Your task to perform on an android device: open app "Cash App" (install if not already installed) and enter user name: "submodules@gmail.com" and password: "heavenly" Image 0: 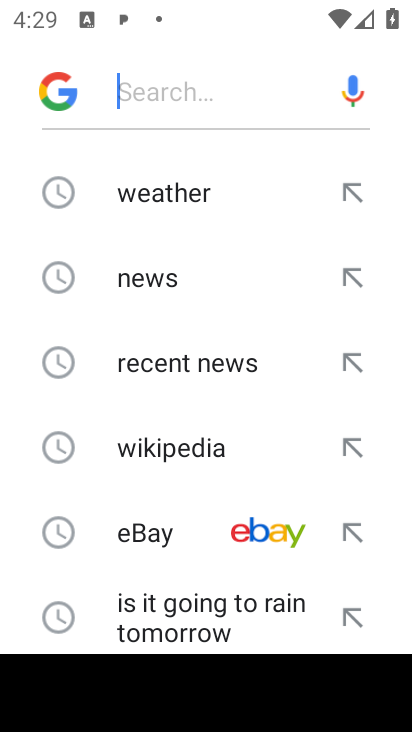
Step 0: press home button
Your task to perform on an android device: open app "Cash App" (install if not already installed) and enter user name: "submodules@gmail.com" and password: "heavenly" Image 1: 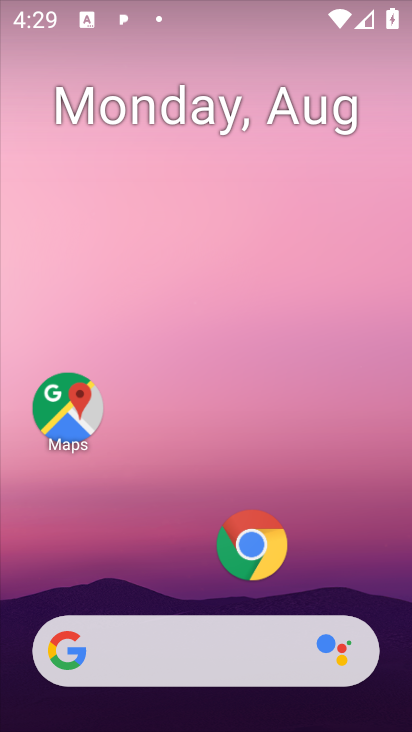
Step 1: drag from (181, 530) to (299, 8)
Your task to perform on an android device: open app "Cash App" (install if not already installed) and enter user name: "submodules@gmail.com" and password: "heavenly" Image 2: 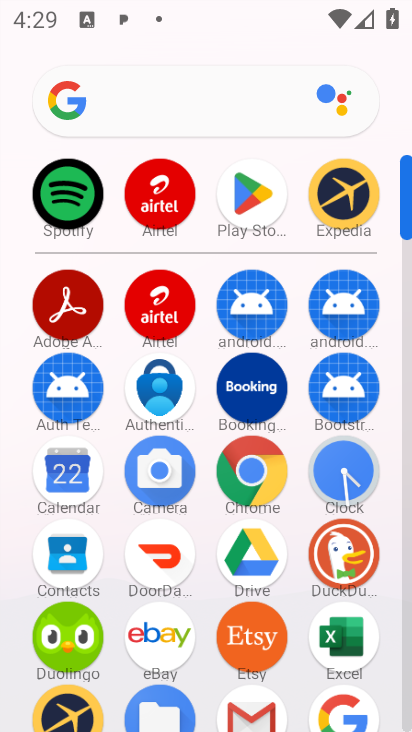
Step 2: click (263, 184)
Your task to perform on an android device: open app "Cash App" (install if not already installed) and enter user name: "submodules@gmail.com" and password: "heavenly" Image 3: 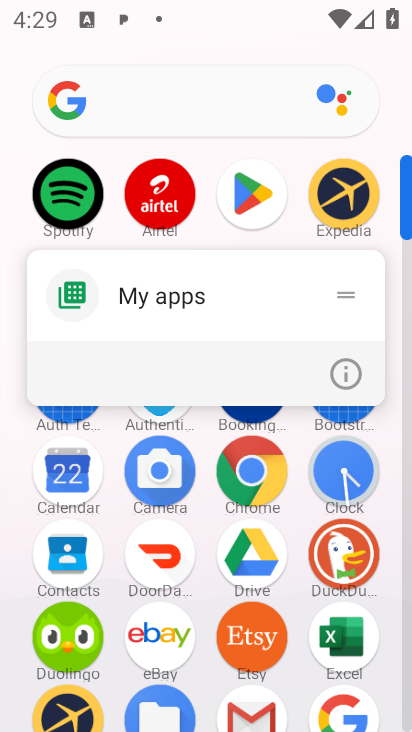
Step 3: click (252, 207)
Your task to perform on an android device: open app "Cash App" (install if not already installed) and enter user name: "submodules@gmail.com" and password: "heavenly" Image 4: 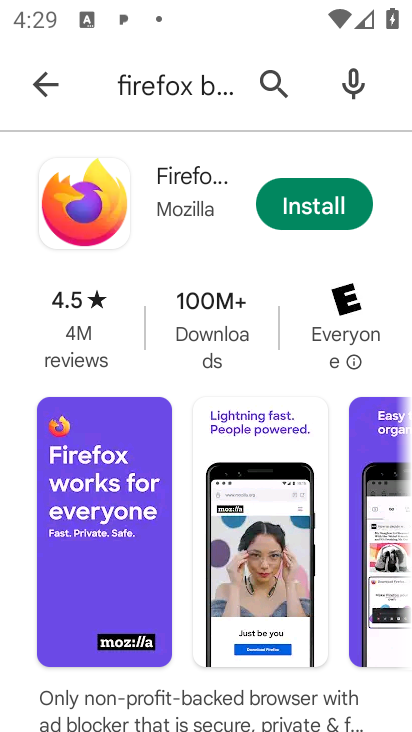
Step 4: click (280, 83)
Your task to perform on an android device: open app "Cash App" (install if not already installed) and enter user name: "submodules@gmail.com" and password: "heavenly" Image 5: 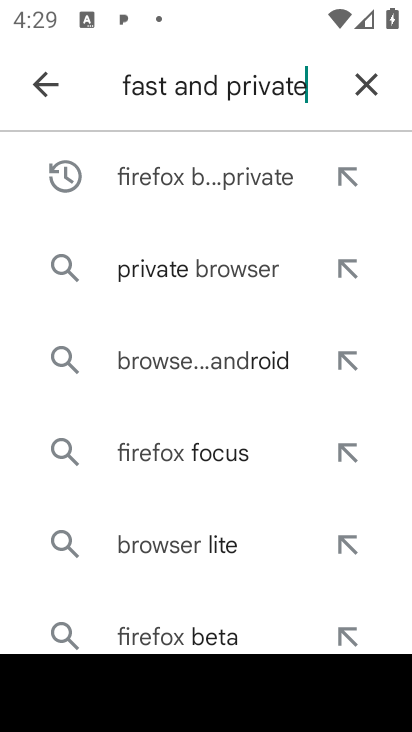
Step 5: click (369, 83)
Your task to perform on an android device: open app "Cash App" (install if not already installed) and enter user name: "submodules@gmail.com" and password: "heavenly" Image 6: 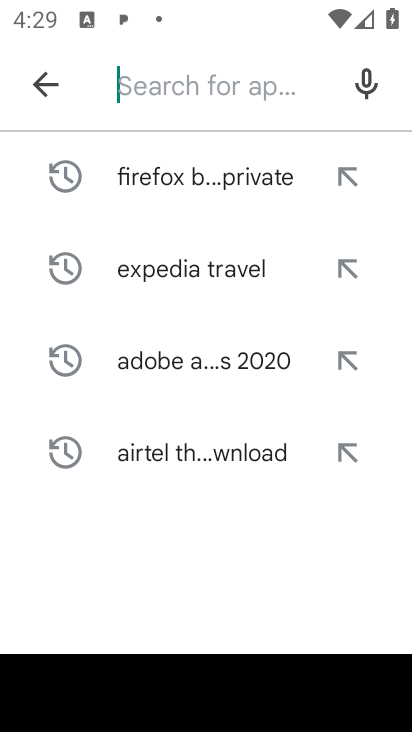
Step 6: click (168, 94)
Your task to perform on an android device: open app "Cash App" (install if not already installed) and enter user name: "submodules@gmail.com" and password: "heavenly" Image 7: 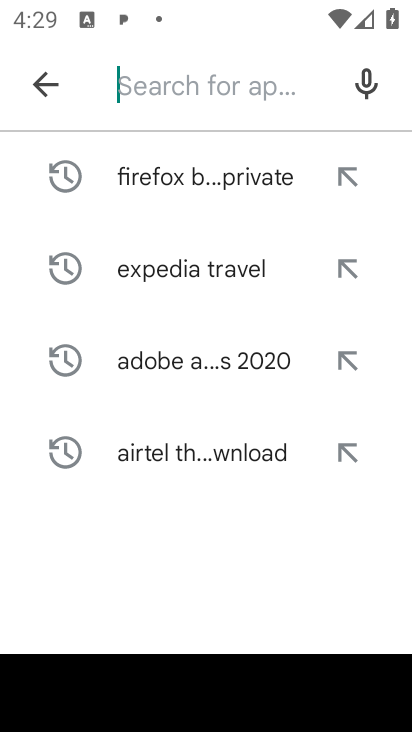
Step 7: type "cash app"
Your task to perform on an android device: open app "Cash App" (install if not already installed) and enter user name: "submodules@gmail.com" and password: "heavenly" Image 8: 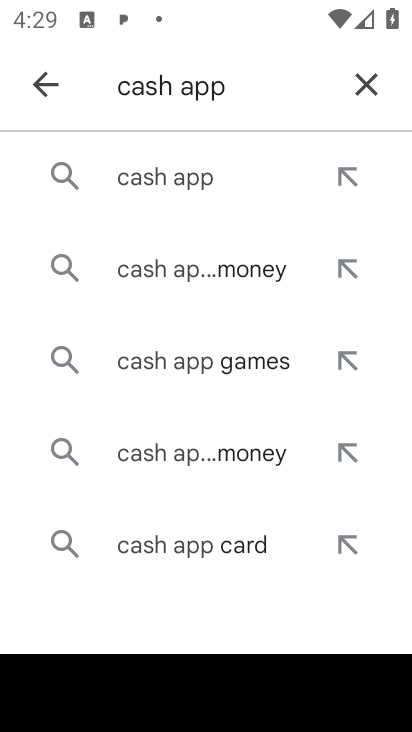
Step 8: click (157, 153)
Your task to perform on an android device: open app "Cash App" (install if not already installed) and enter user name: "submodules@gmail.com" and password: "heavenly" Image 9: 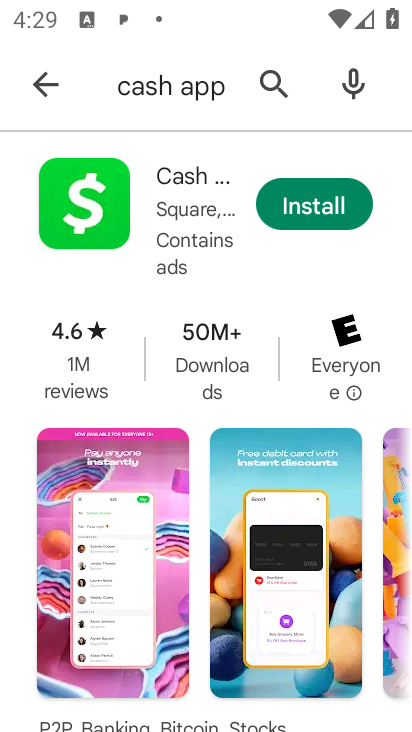
Step 9: click (355, 194)
Your task to perform on an android device: open app "Cash App" (install if not already installed) and enter user name: "submodules@gmail.com" and password: "heavenly" Image 10: 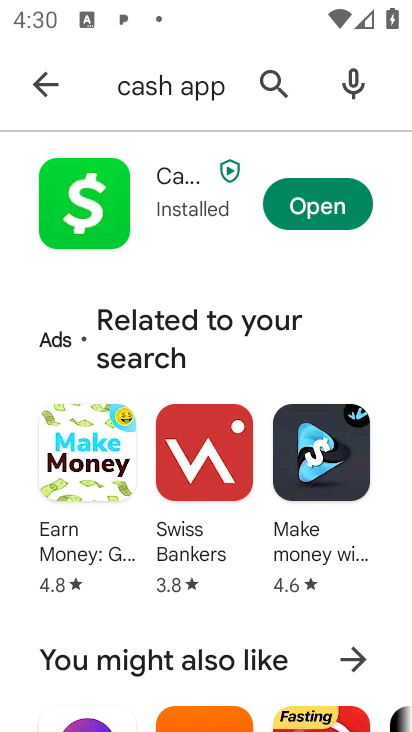
Step 10: click (284, 209)
Your task to perform on an android device: open app "Cash App" (install if not already installed) and enter user name: "submodules@gmail.com" and password: "heavenly" Image 11: 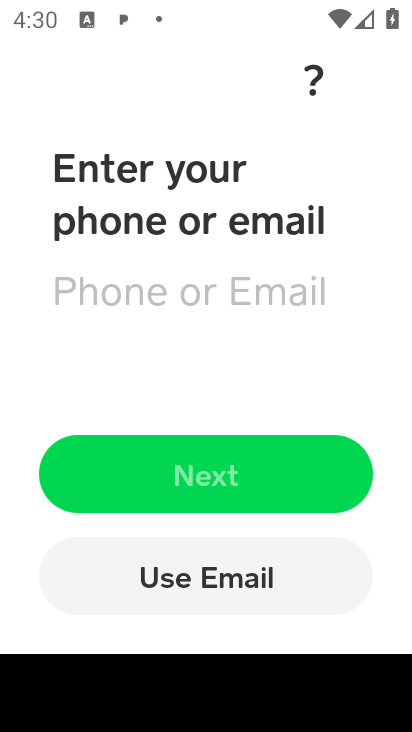
Step 11: click (94, 292)
Your task to perform on an android device: open app "Cash App" (install if not already installed) and enter user name: "submodules@gmail.com" and password: "heavenly" Image 12: 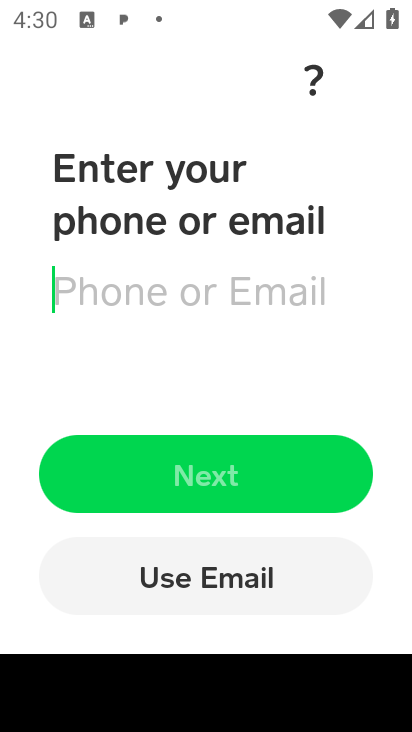
Step 12: type "submodules@gmail.com"
Your task to perform on an android device: open app "Cash App" (install if not already installed) and enter user name: "submodules@gmail.com" and password: "heavenly" Image 13: 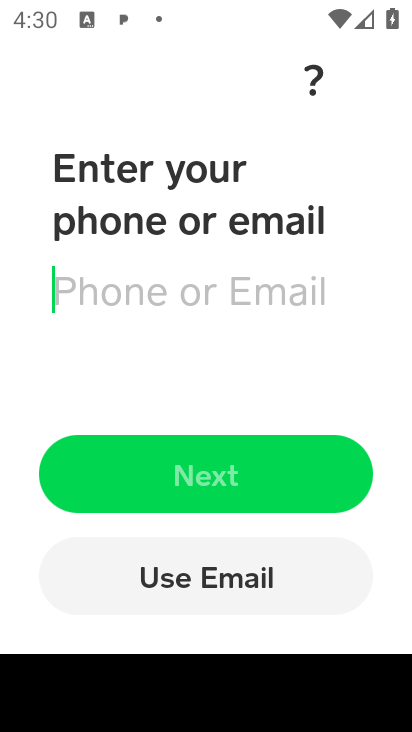
Step 13: click (187, 385)
Your task to perform on an android device: open app "Cash App" (install if not already installed) and enter user name: "submodules@gmail.com" and password: "heavenly" Image 14: 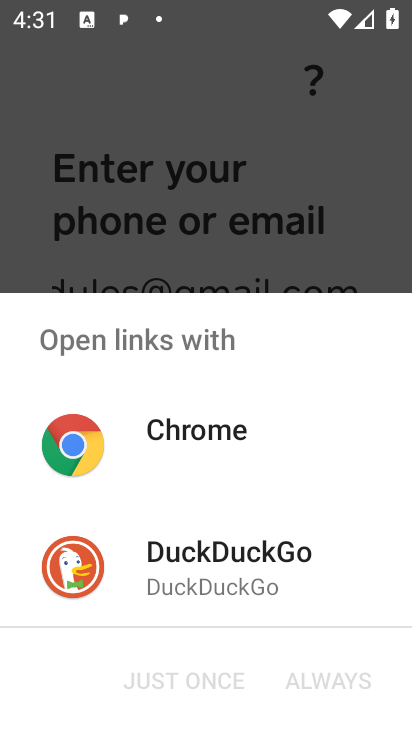
Step 14: task complete